Your task to perform on an android device: Go to Wikipedia Image 0: 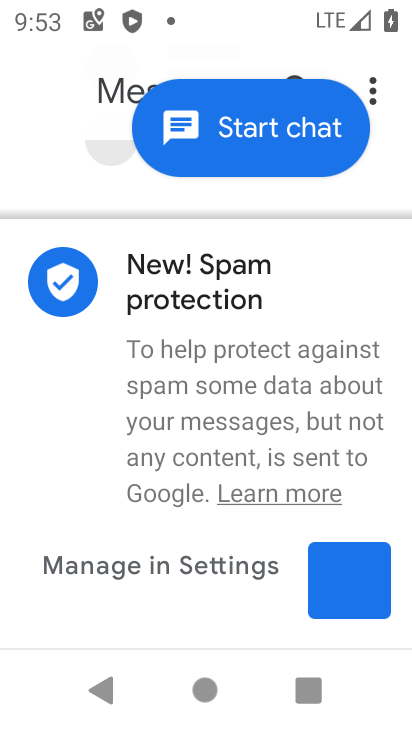
Step 0: press back button
Your task to perform on an android device: Go to Wikipedia Image 1: 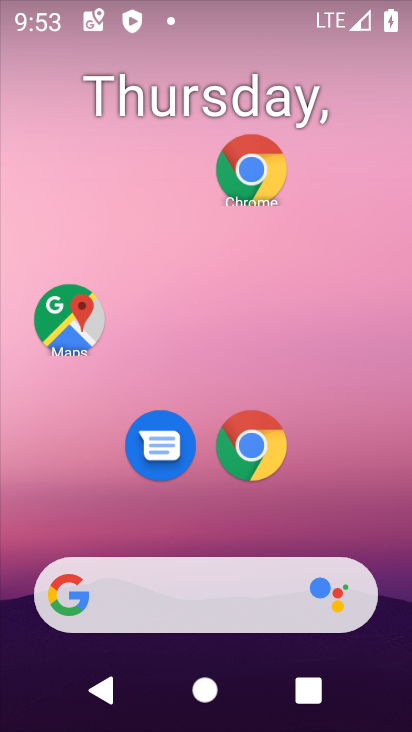
Step 1: click (239, 452)
Your task to perform on an android device: Go to Wikipedia Image 2: 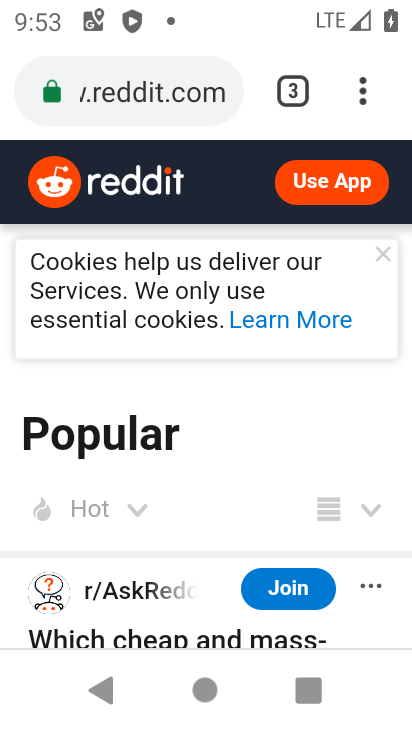
Step 2: click (285, 77)
Your task to perform on an android device: Go to Wikipedia Image 3: 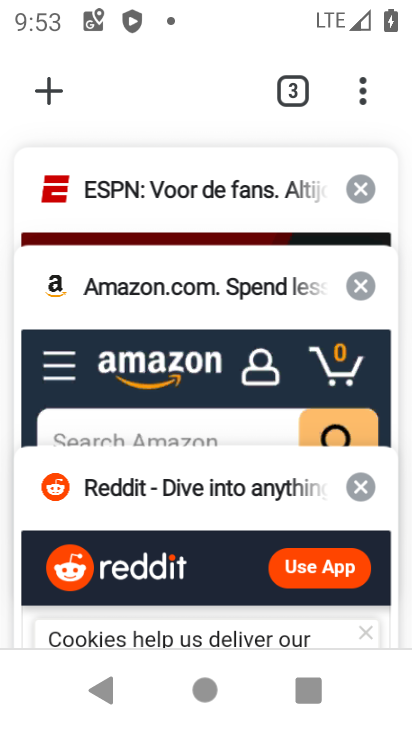
Step 3: click (50, 86)
Your task to perform on an android device: Go to Wikipedia Image 4: 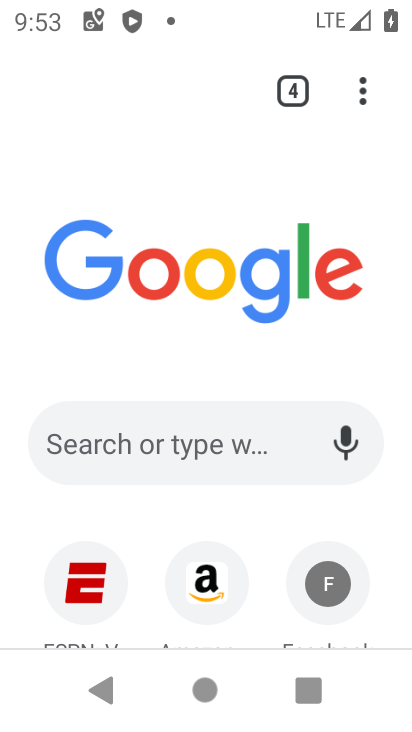
Step 4: drag from (212, 489) to (153, 90)
Your task to perform on an android device: Go to Wikipedia Image 5: 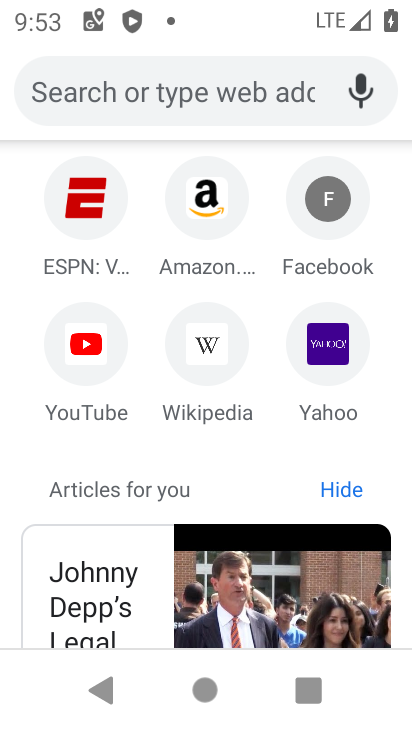
Step 5: click (203, 340)
Your task to perform on an android device: Go to Wikipedia Image 6: 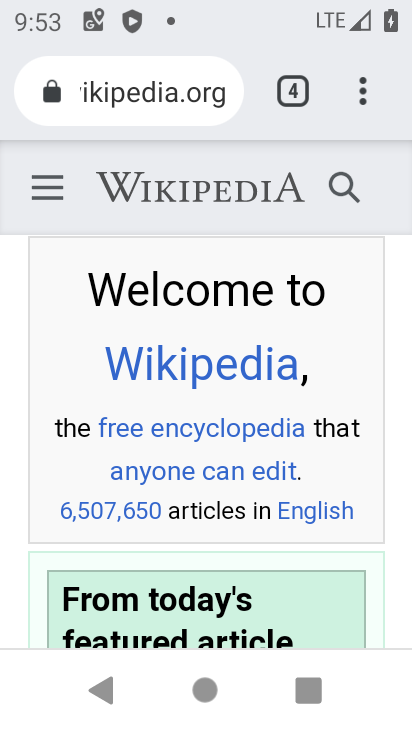
Step 6: task complete